Your task to perform on an android device: Open calendar and show me the first week of next month Image 0: 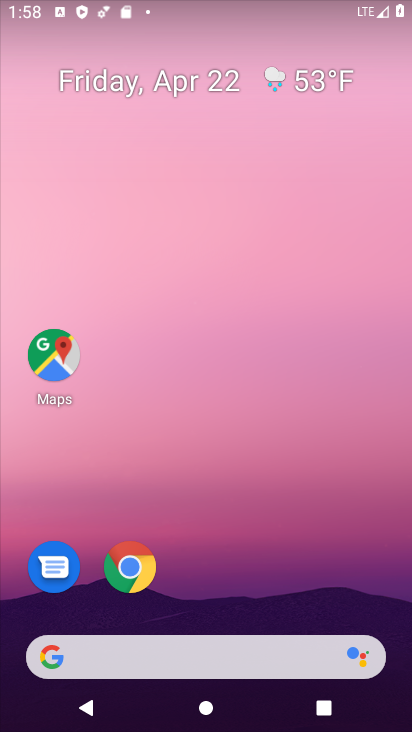
Step 0: drag from (362, 592) to (296, 172)
Your task to perform on an android device: Open calendar and show me the first week of next month Image 1: 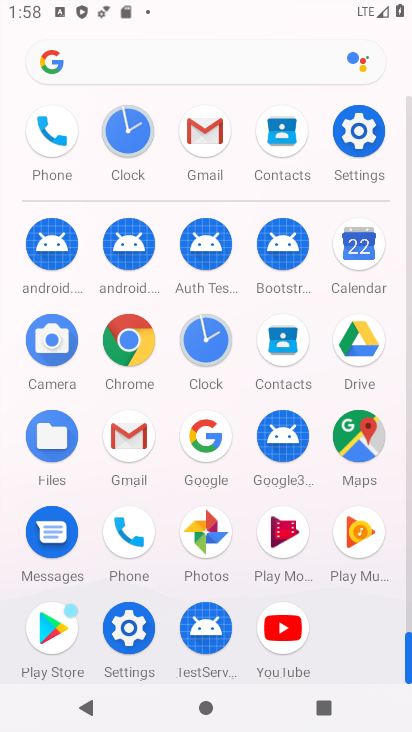
Step 1: click (359, 245)
Your task to perform on an android device: Open calendar and show me the first week of next month Image 2: 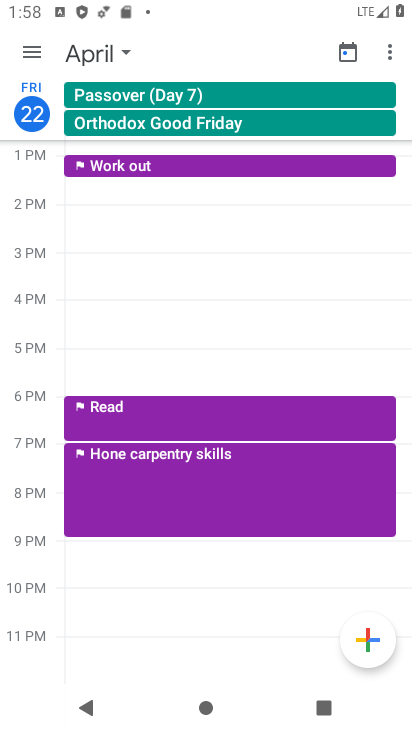
Step 2: click (29, 55)
Your task to perform on an android device: Open calendar and show me the first week of next month Image 3: 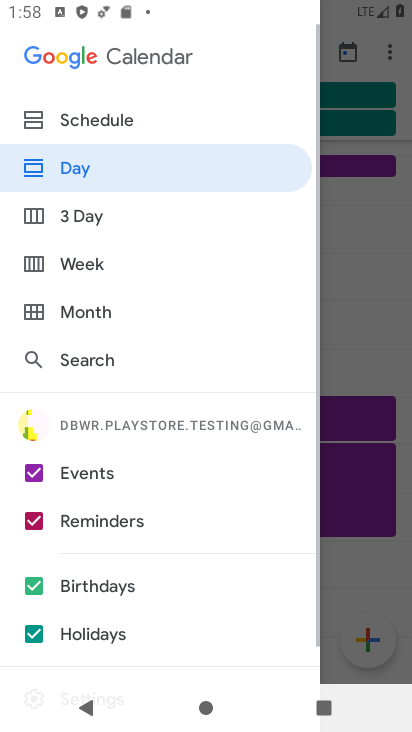
Step 3: click (88, 267)
Your task to perform on an android device: Open calendar and show me the first week of next month Image 4: 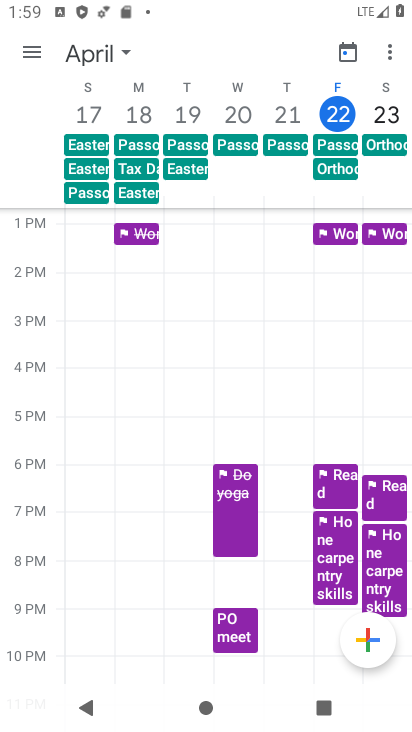
Step 4: click (125, 54)
Your task to perform on an android device: Open calendar and show me the first week of next month Image 5: 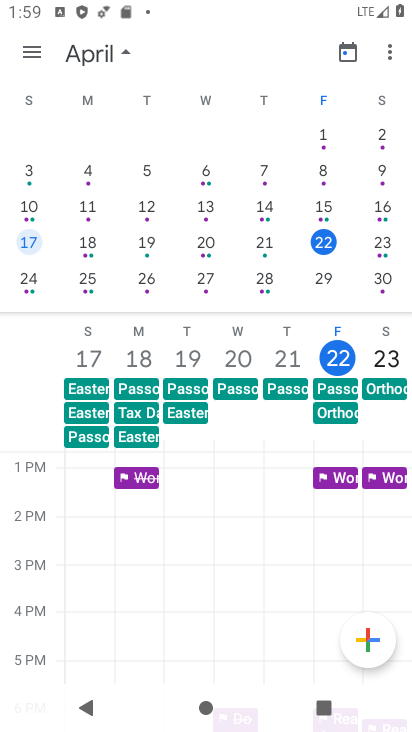
Step 5: task complete